Your task to perform on an android device: Go to internet settings Image 0: 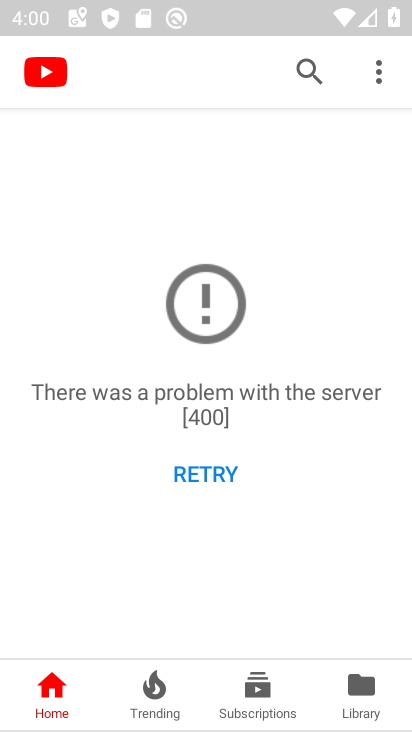
Step 0: press back button
Your task to perform on an android device: Go to internet settings Image 1: 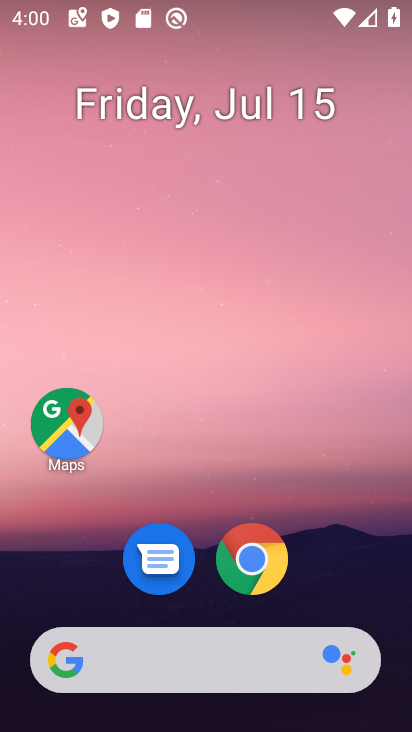
Step 1: drag from (118, 574) to (261, 5)
Your task to perform on an android device: Go to internet settings Image 2: 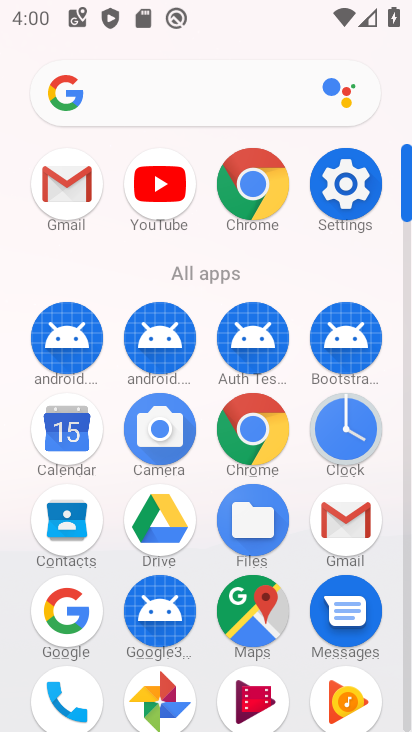
Step 2: click (354, 191)
Your task to perform on an android device: Go to internet settings Image 3: 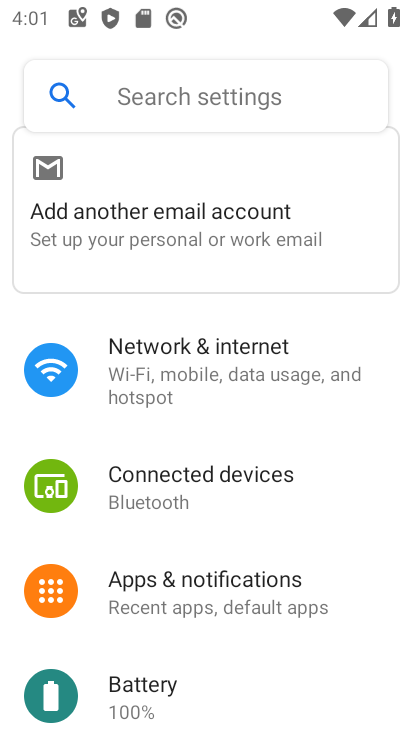
Step 3: click (206, 385)
Your task to perform on an android device: Go to internet settings Image 4: 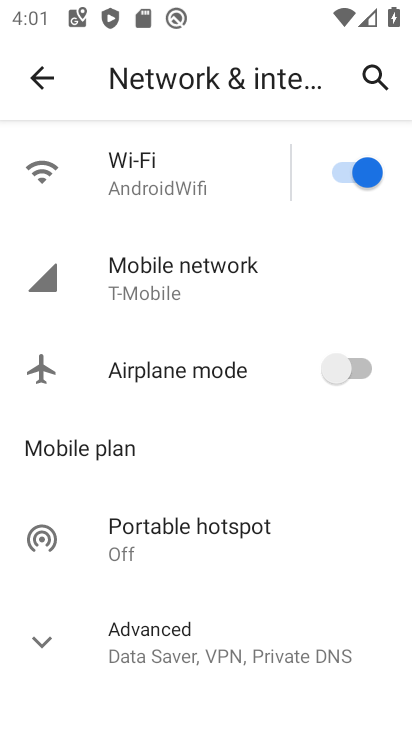
Step 4: task complete